Your task to perform on an android device: remove spam from my inbox in the gmail app Image 0: 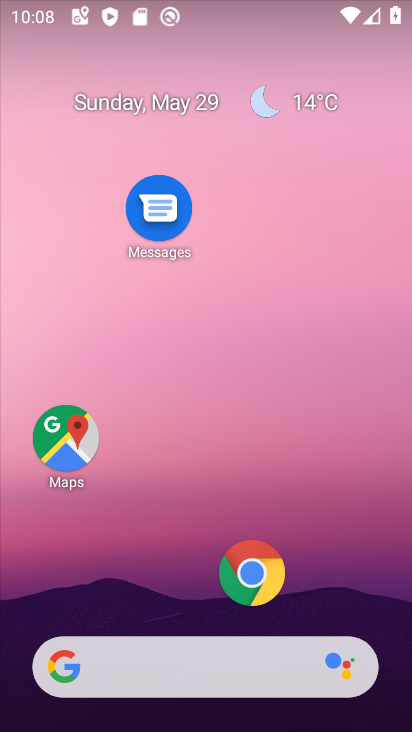
Step 0: drag from (181, 616) to (181, 9)
Your task to perform on an android device: remove spam from my inbox in the gmail app Image 1: 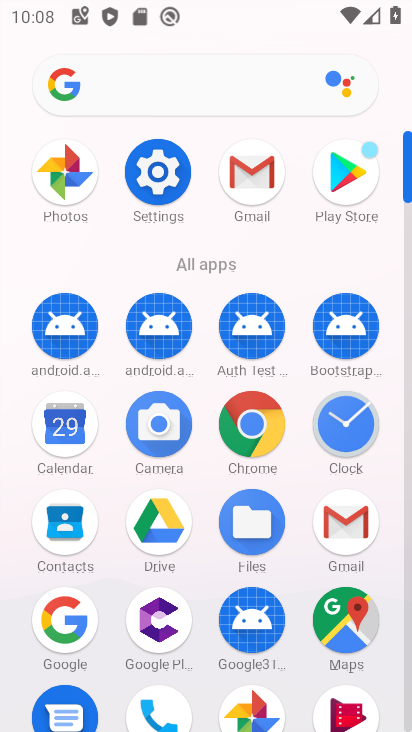
Step 1: click (239, 179)
Your task to perform on an android device: remove spam from my inbox in the gmail app Image 2: 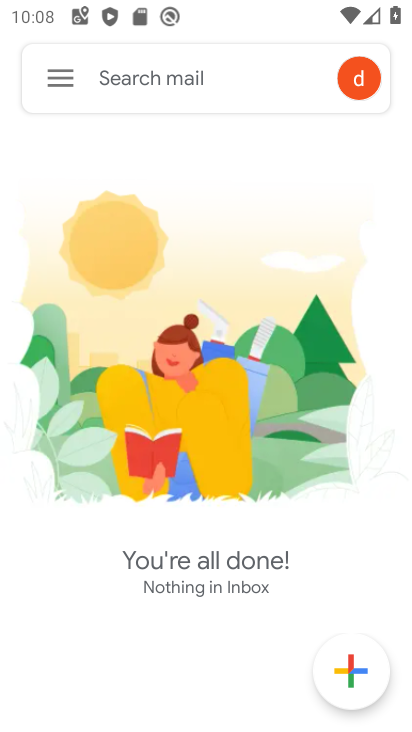
Step 2: click (69, 84)
Your task to perform on an android device: remove spam from my inbox in the gmail app Image 3: 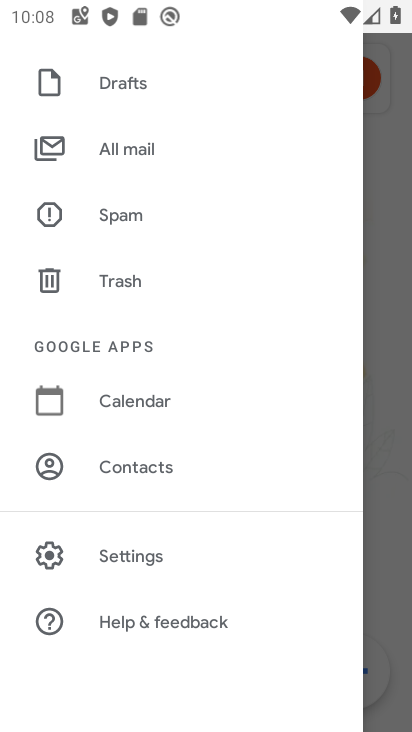
Step 3: click (112, 229)
Your task to perform on an android device: remove spam from my inbox in the gmail app Image 4: 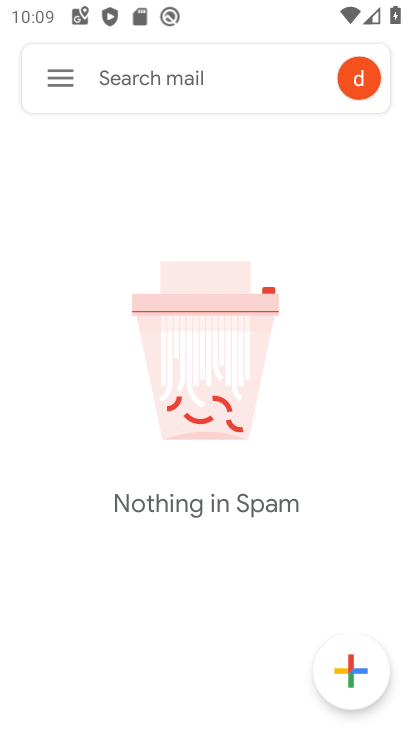
Step 4: task complete